Your task to perform on an android device: toggle javascript in the chrome app Image 0: 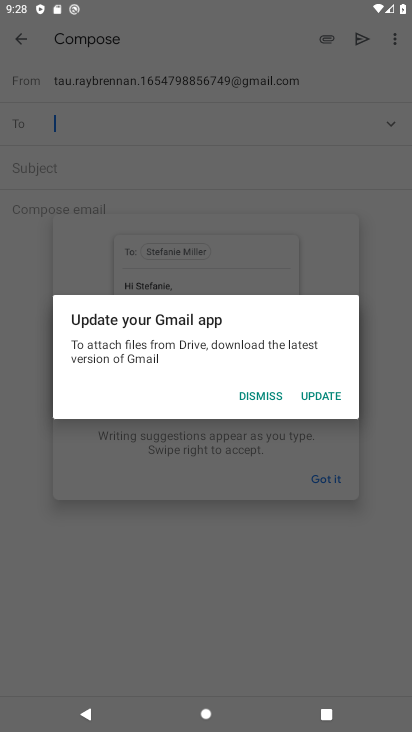
Step 0: press home button
Your task to perform on an android device: toggle javascript in the chrome app Image 1: 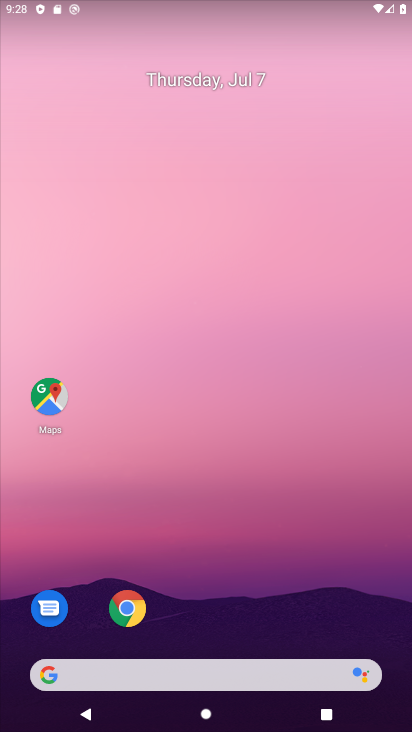
Step 1: drag from (197, 631) to (197, 0)
Your task to perform on an android device: toggle javascript in the chrome app Image 2: 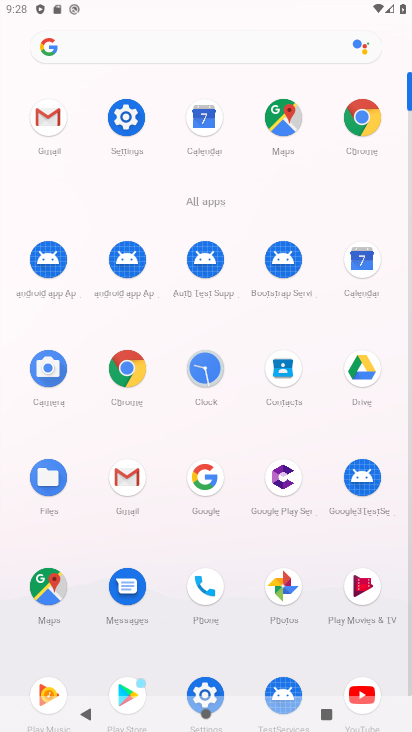
Step 2: click (123, 369)
Your task to perform on an android device: toggle javascript in the chrome app Image 3: 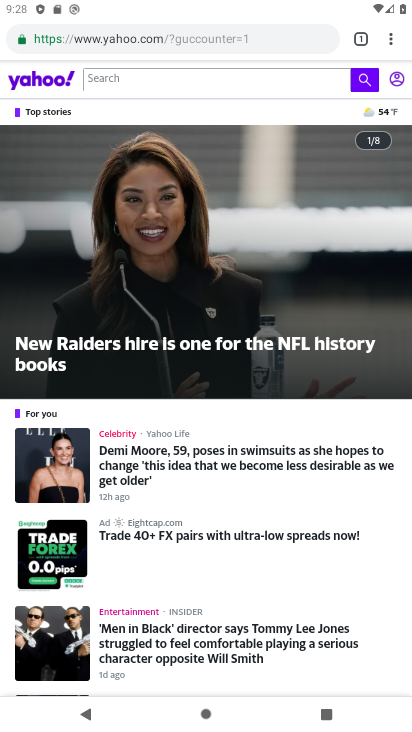
Step 3: click (385, 43)
Your task to perform on an android device: toggle javascript in the chrome app Image 4: 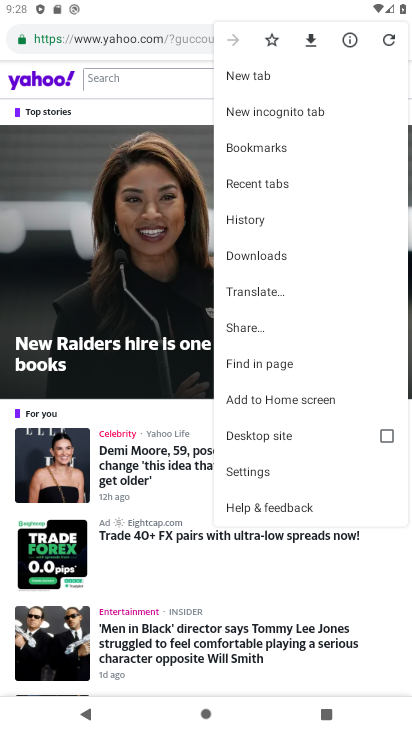
Step 4: click (264, 476)
Your task to perform on an android device: toggle javascript in the chrome app Image 5: 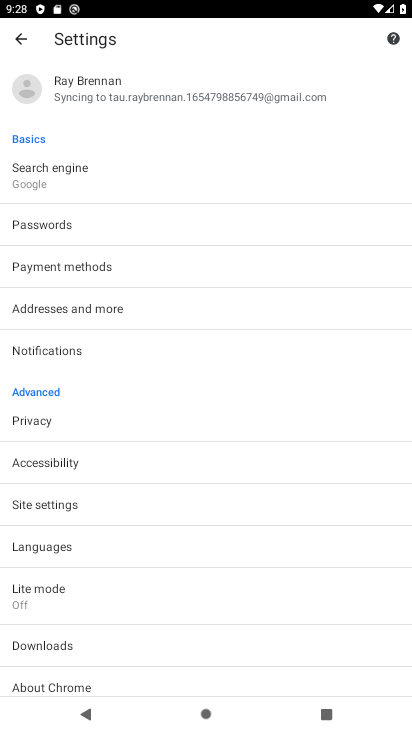
Step 5: drag from (172, 631) to (176, 394)
Your task to perform on an android device: toggle javascript in the chrome app Image 6: 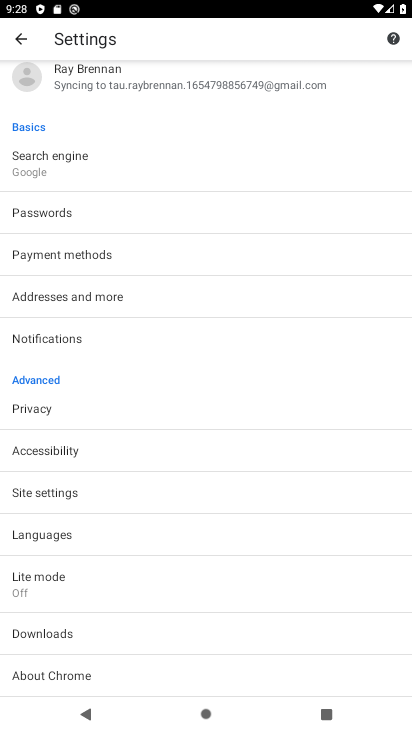
Step 6: click (49, 490)
Your task to perform on an android device: toggle javascript in the chrome app Image 7: 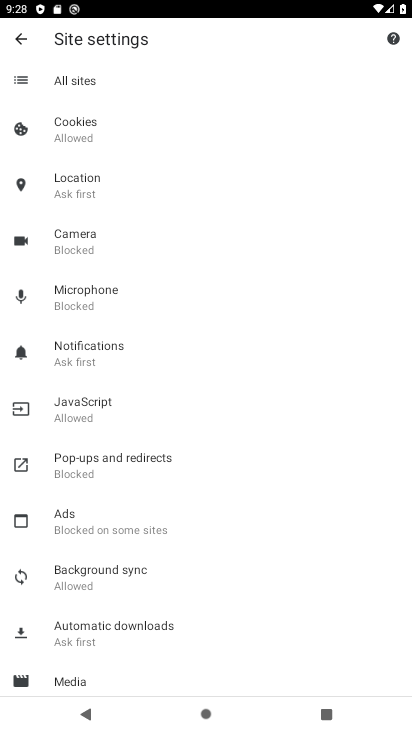
Step 7: click (77, 411)
Your task to perform on an android device: toggle javascript in the chrome app Image 8: 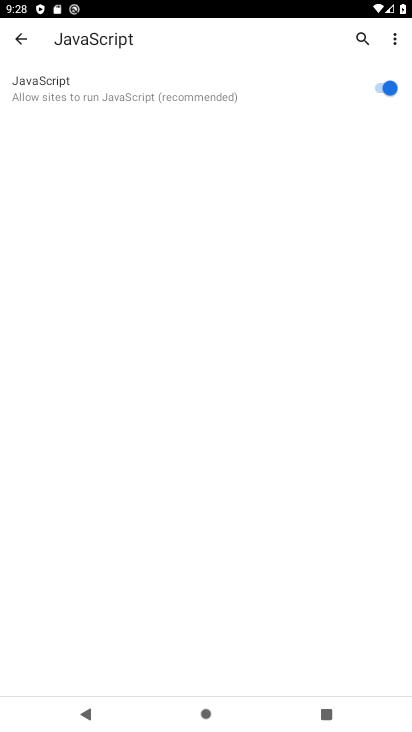
Step 8: click (384, 85)
Your task to perform on an android device: toggle javascript in the chrome app Image 9: 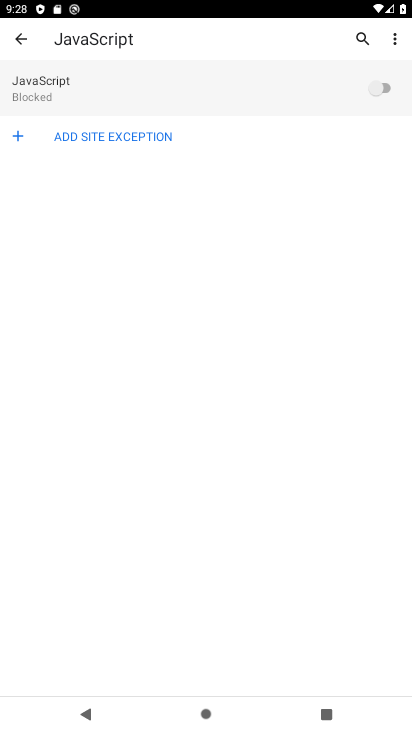
Step 9: task complete